Your task to perform on an android device: Show me the alarms in the clock app Image 0: 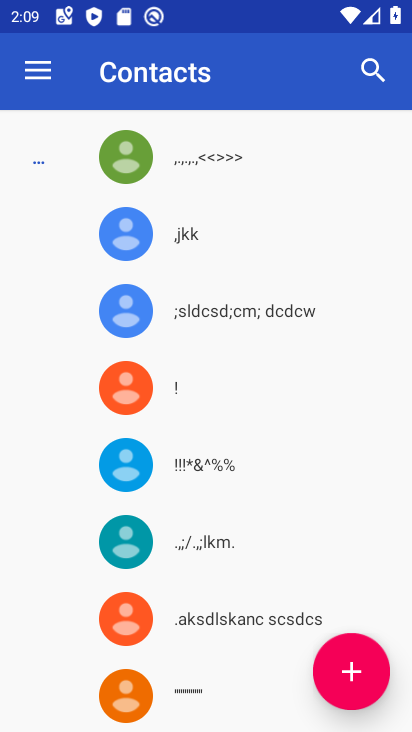
Step 0: press home button
Your task to perform on an android device: Show me the alarms in the clock app Image 1: 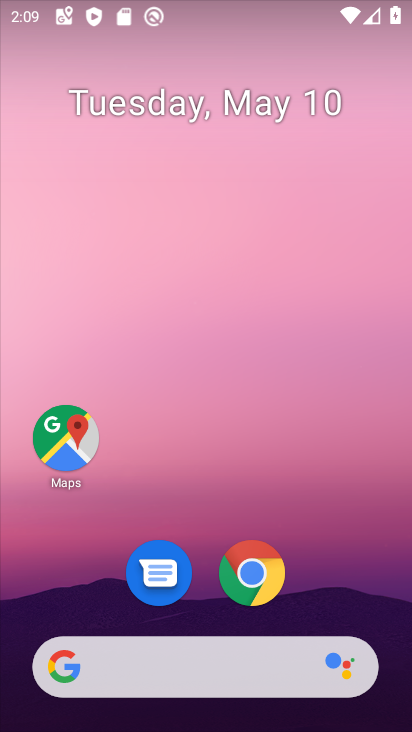
Step 1: drag from (231, 717) to (174, 120)
Your task to perform on an android device: Show me the alarms in the clock app Image 2: 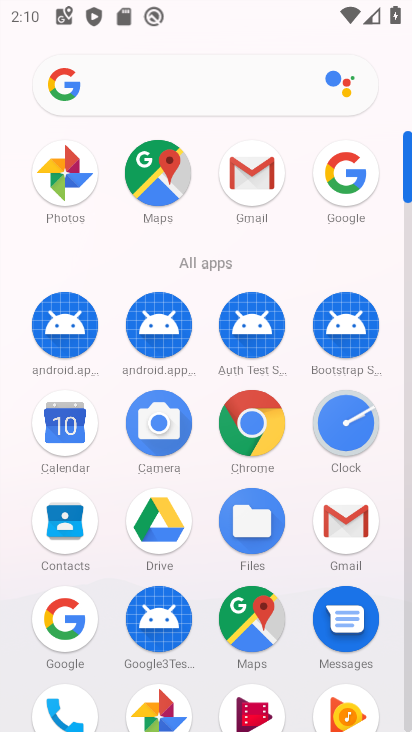
Step 2: click (360, 415)
Your task to perform on an android device: Show me the alarms in the clock app Image 3: 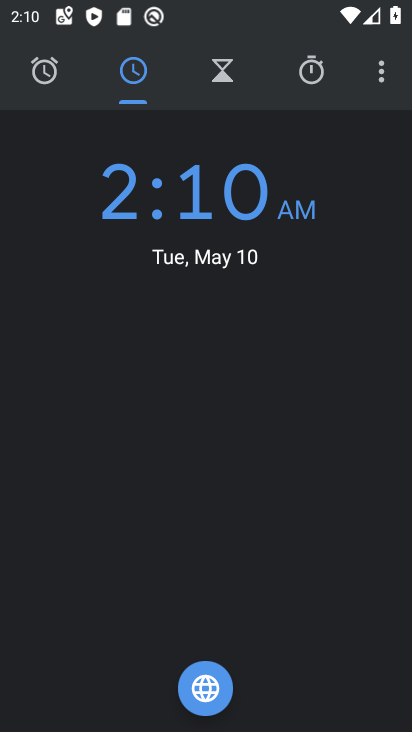
Step 3: click (56, 80)
Your task to perform on an android device: Show me the alarms in the clock app Image 4: 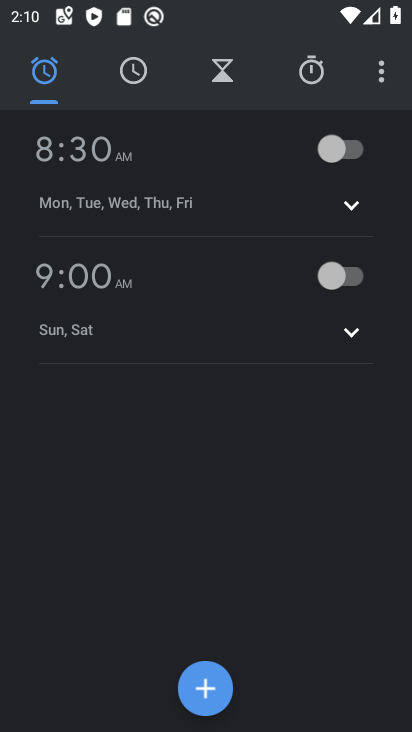
Step 4: click (201, 694)
Your task to perform on an android device: Show me the alarms in the clock app Image 5: 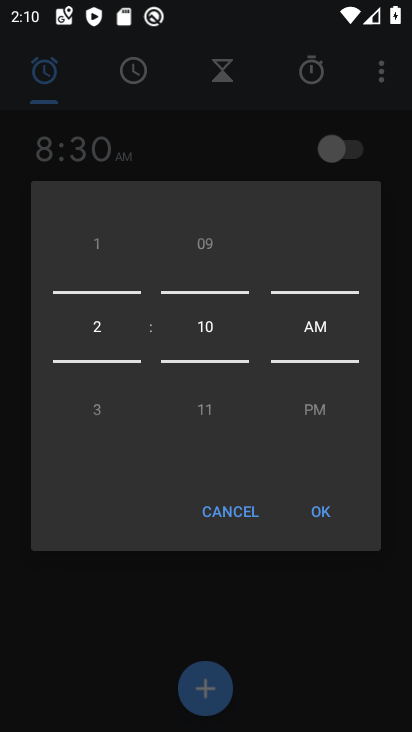
Step 5: click (319, 520)
Your task to perform on an android device: Show me the alarms in the clock app Image 6: 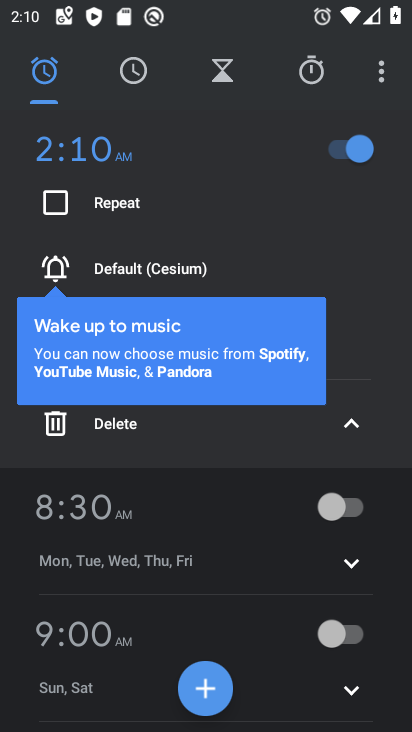
Step 6: click (208, 688)
Your task to perform on an android device: Show me the alarms in the clock app Image 7: 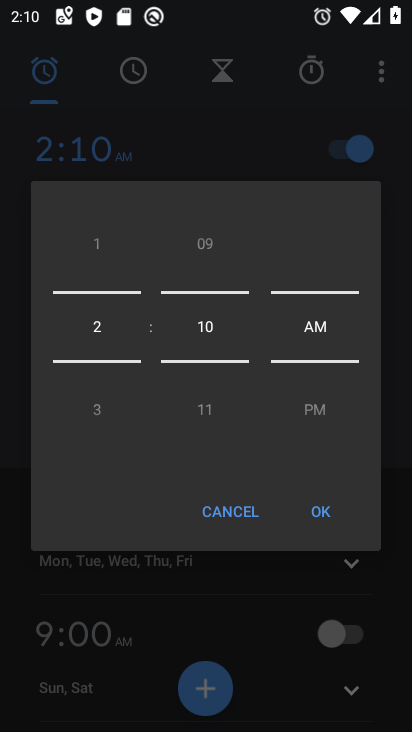
Step 7: click (332, 506)
Your task to perform on an android device: Show me the alarms in the clock app Image 8: 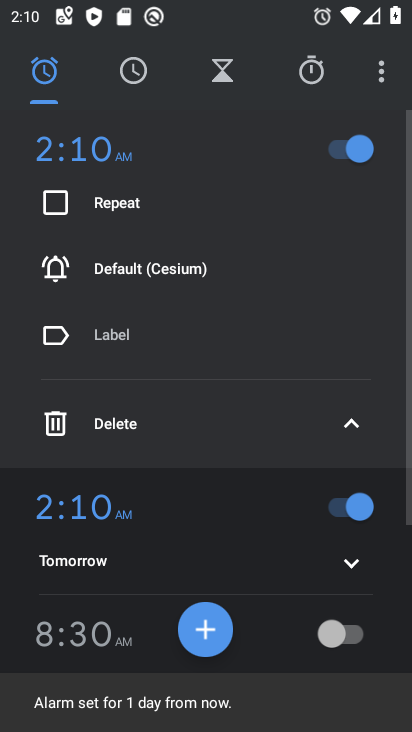
Step 8: task complete